Your task to perform on an android device: turn off improve location accuracy Image 0: 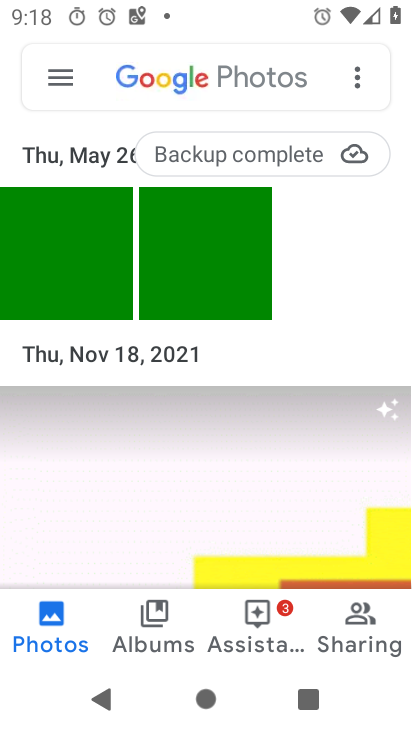
Step 0: press back button
Your task to perform on an android device: turn off improve location accuracy Image 1: 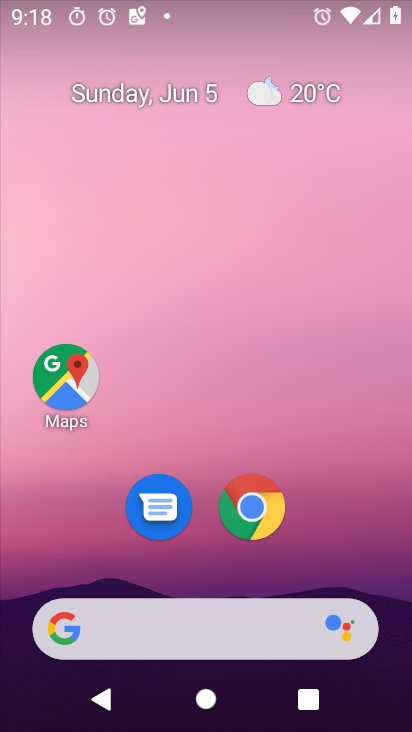
Step 1: drag from (351, 557) to (200, 13)
Your task to perform on an android device: turn off improve location accuracy Image 2: 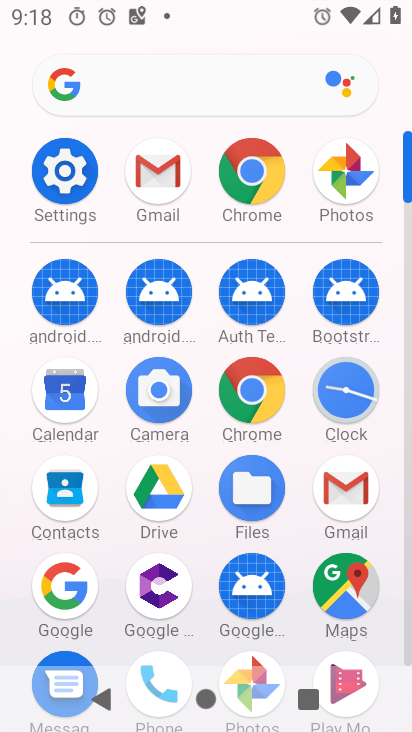
Step 2: drag from (1, 570) to (9, 200)
Your task to perform on an android device: turn off improve location accuracy Image 3: 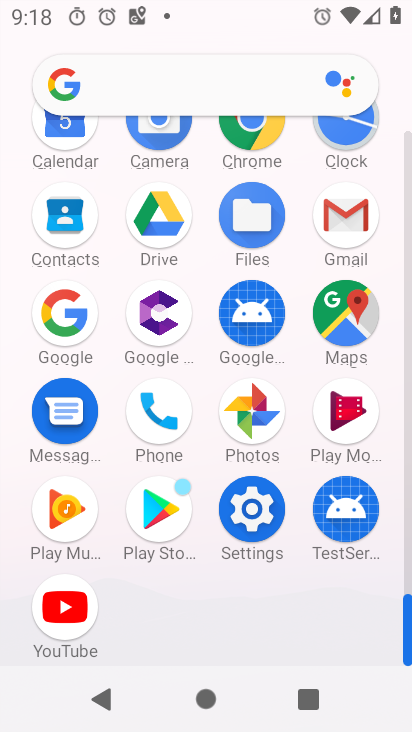
Step 3: click (253, 508)
Your task to perform on an android device: turn off improve location accuracy Image 4: 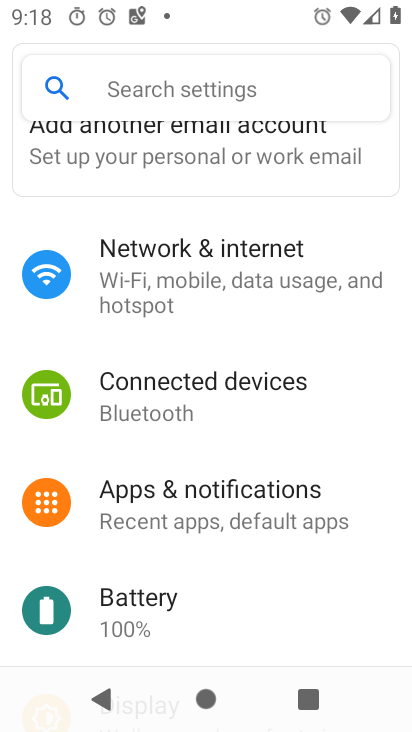
Step 4: drag from (266, 591) to (299, 159)
Your task to perform on an android device: turn off improve location accuracy Image 5: 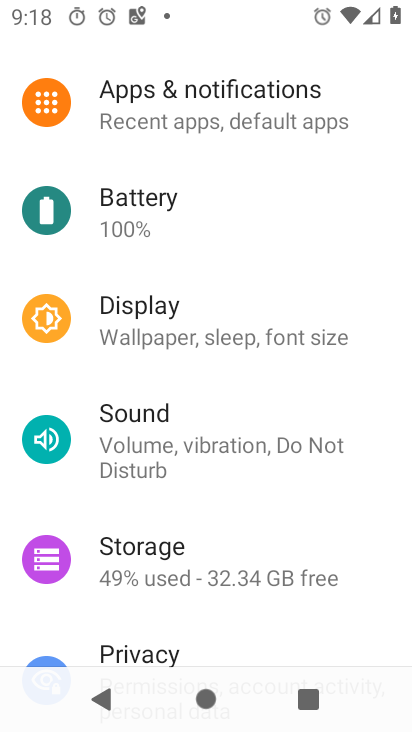
Step 5: drag from (257, 521) to (276, 194)
Your task to perform on an android device: turn off improve location accuracy Image 6: 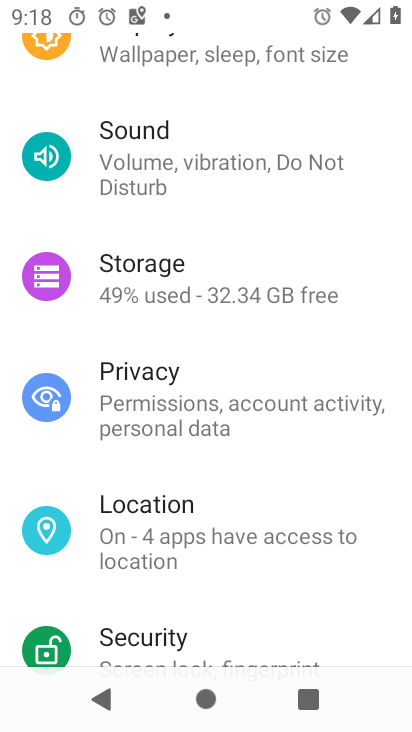
Step 6: click (207, 475)
Your task to perform on an android device: turn off improve location accuracy Image 7: 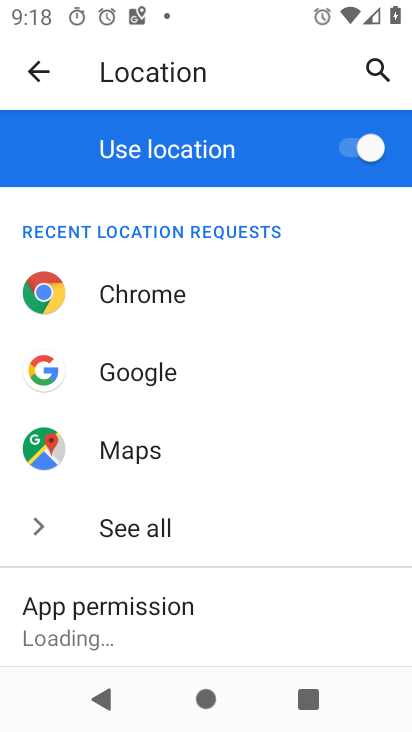
Step 7: click (344, 141)
Your task to perform on an android device: turn off improve location accuracy Image 8: 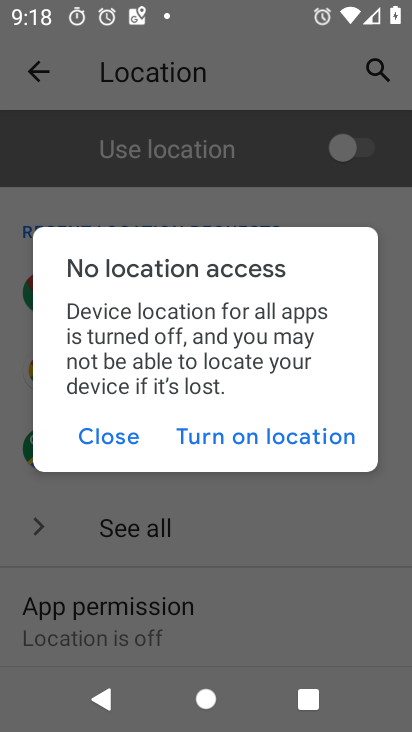
Step 8: click (205, 428)
Your task to perform on an android device: turn off improve location accuracy Image 9: 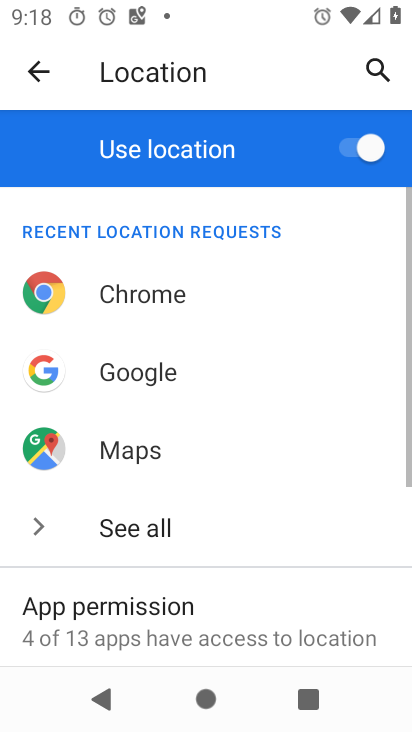
Step 9: drag from (327, 617) to (319, 174)
Your task to perform on an android device: turn off improve location accuracy Image 10: 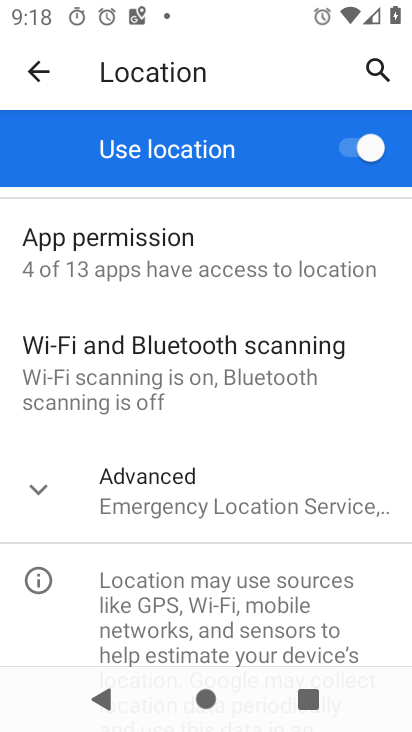
Step 10: click (62, 488)
Your task to perform on an android device: turn off improve location accuracy Image 11: 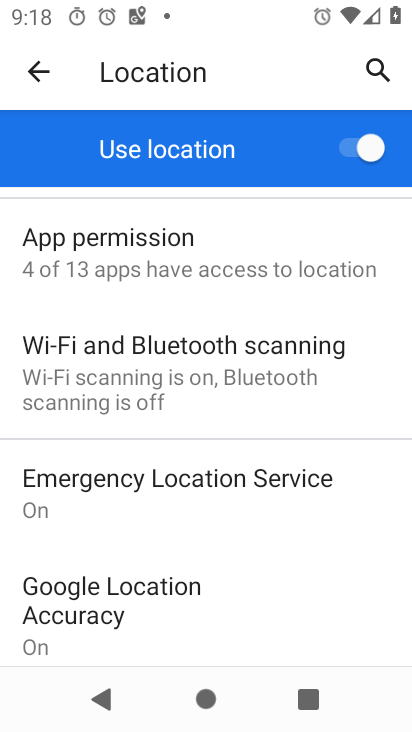
Step 11: drag from (218, 587) to (241, 264)
Your task to perform on an android device: turn off improve location accuracy Image 12: 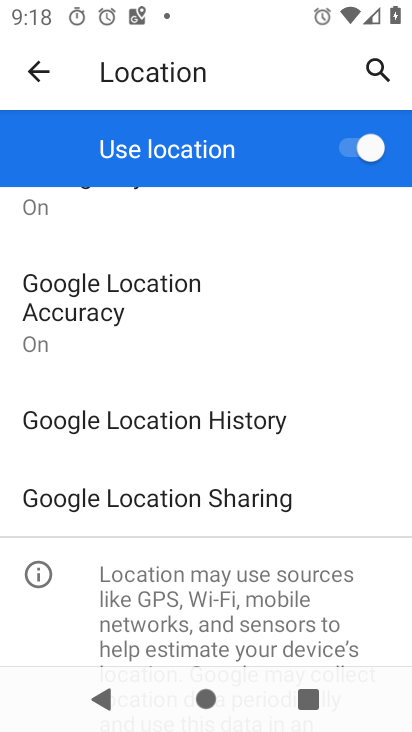
Step 12: click (148, 298)
Your task to perform on an android device: turn off improve location accuracy Image 13: 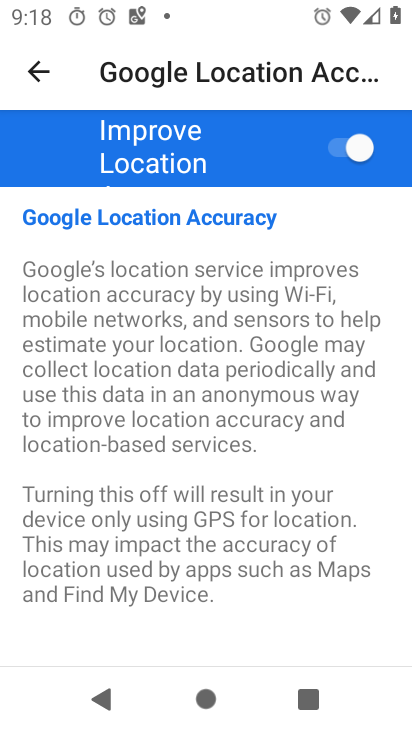
Step 13: click (343, 143)
Your task to perform on an android device: turn off improve location accuracy Image 14: 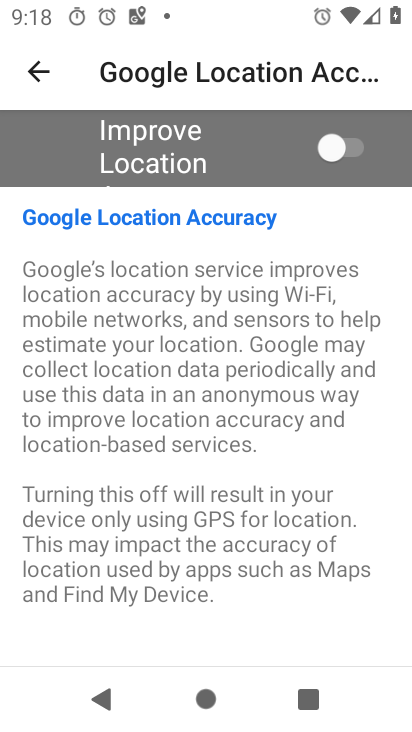
Step 14: task complete